Your task to perform on an android device: see sites visited before in the chrome app Image 0: 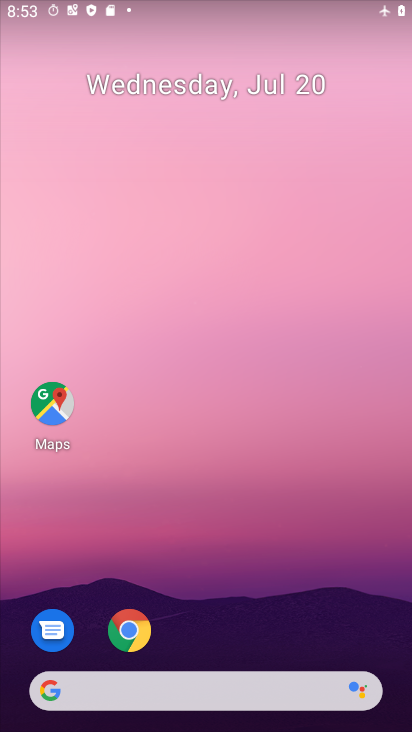
Step 0: drag from (266, 626) to (266, 212)
Your task to perform on an android device: see sites visited before in the chrome app Image 1: 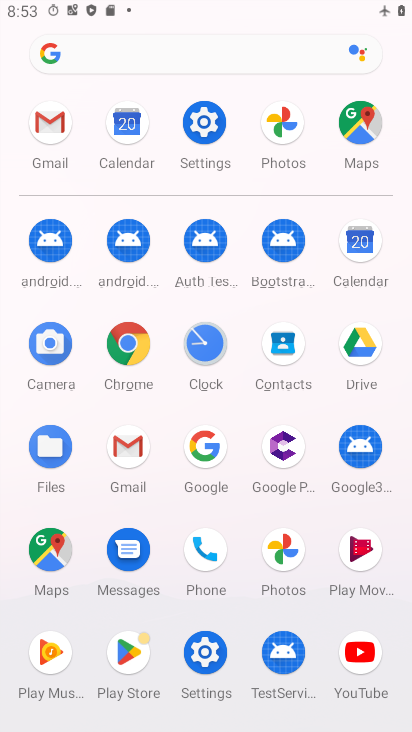
Step 1: click (133, 365)
Your task to perform on an android device: see sites visited before in the chrome app Image 2: 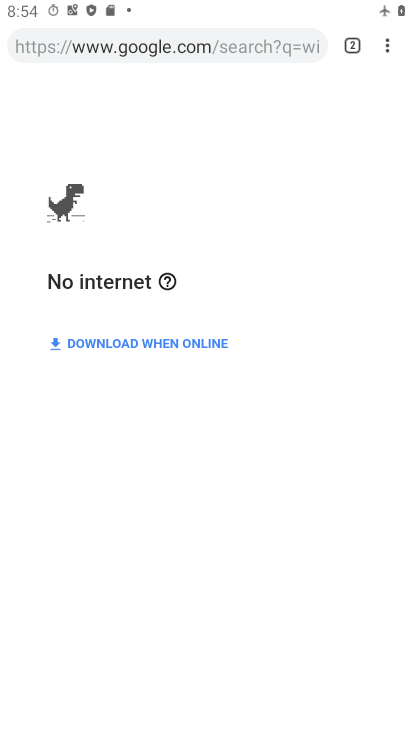
Step 2: click (380, 48)
Your task to perform on an android device: see sites visited before in the chrome app Image 3: 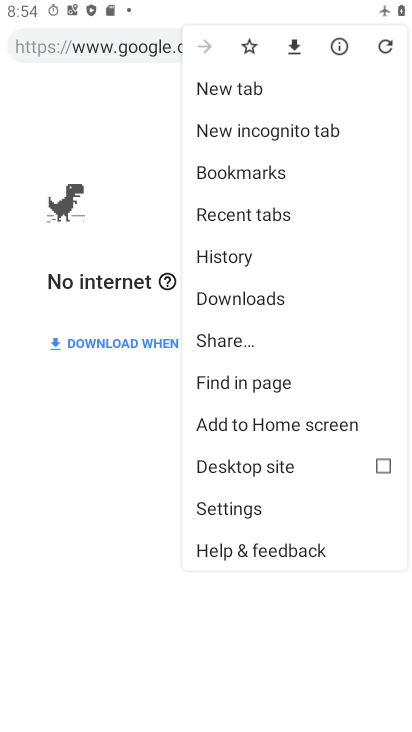
Step 3: click (242, 253)
Your task to perform on an android device: see sites visited before in the chrome app Image 4: 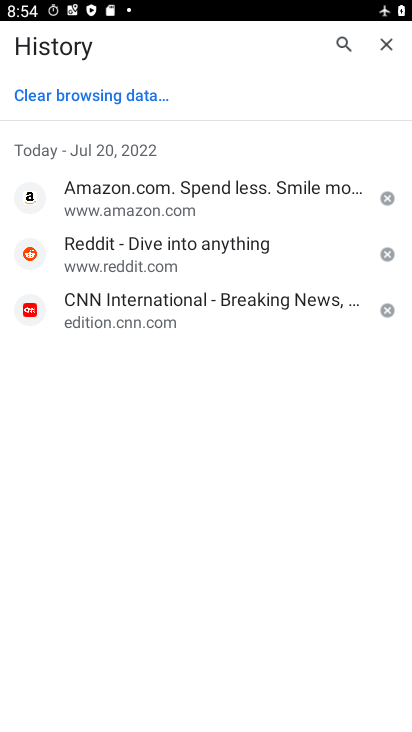
Step 4: task complete